Your task to perform on an android device: turn on bluetooth scan Image 0: 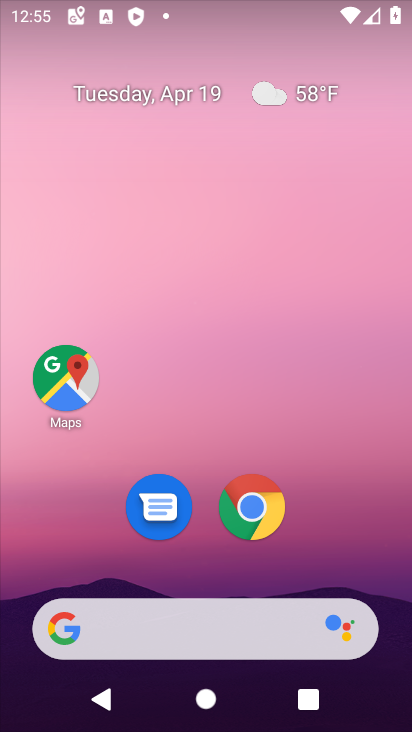
Step 0: drag from (212, 570) to (194, 44)
Your task to perform on an android device: turn on bluetooth scan Image 1: 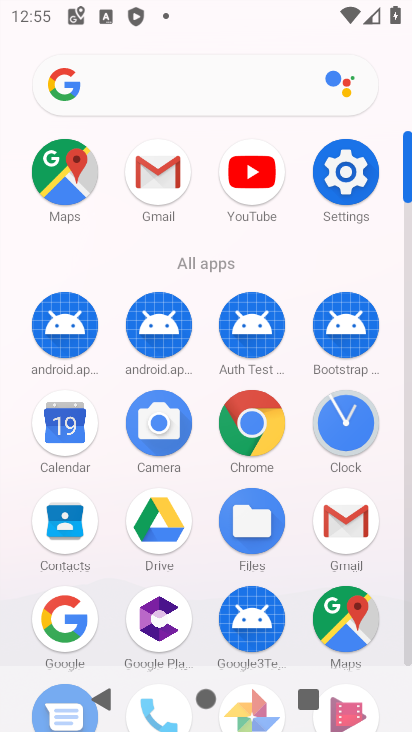
Step 1: click (339, 181)
Your task to perform on an android device: turn on bluetooth scan Image 2: 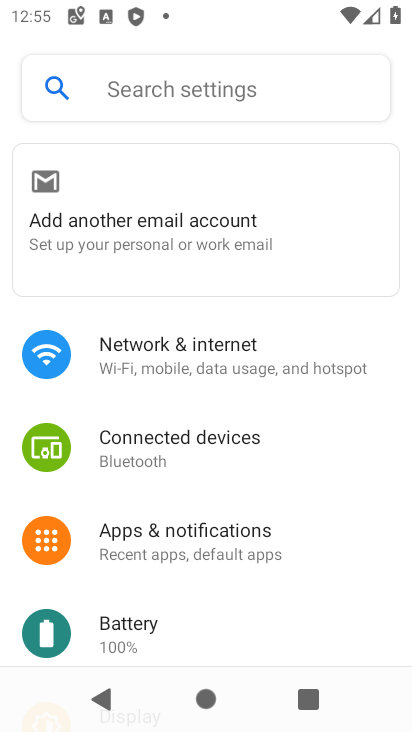
Step 2: drag from (231, 547) to (234, 248)
Your task to perform on an android device: turn on bluetooth scan Image 3: 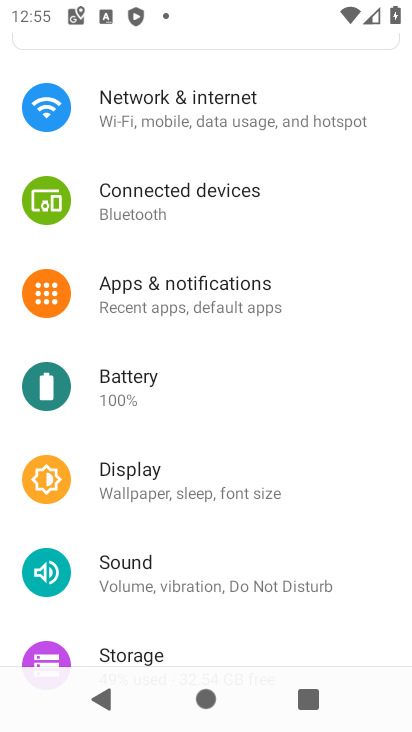
Step 3: drag from (236, 574) to (236, 259)
Your task to perform on an android device: turn on bluetooth scan Image 4: 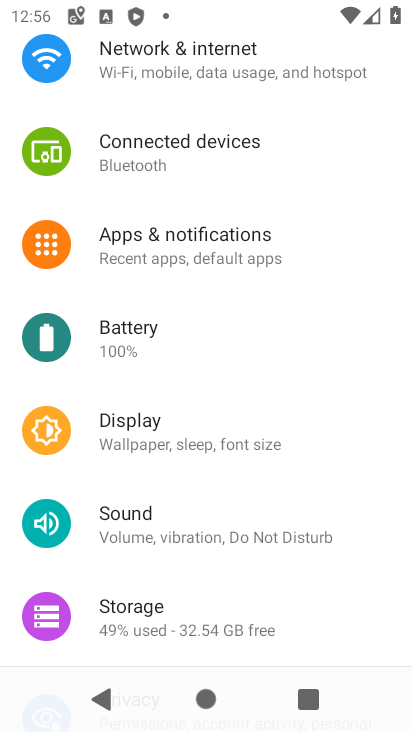
Step 4: drag from (219, 567) to (217, 275)
Your task to perform on an android device: turn on bluetooth scan Image 5: 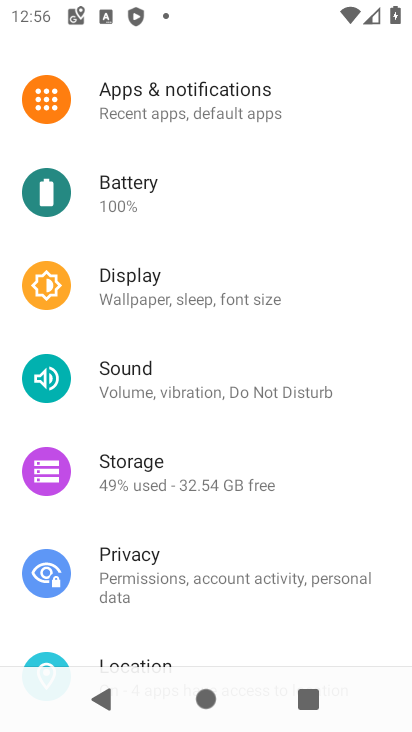
Step 5: click (184, 647)
Your task to perform on an android device: turn on bluetooth scan Image 6: 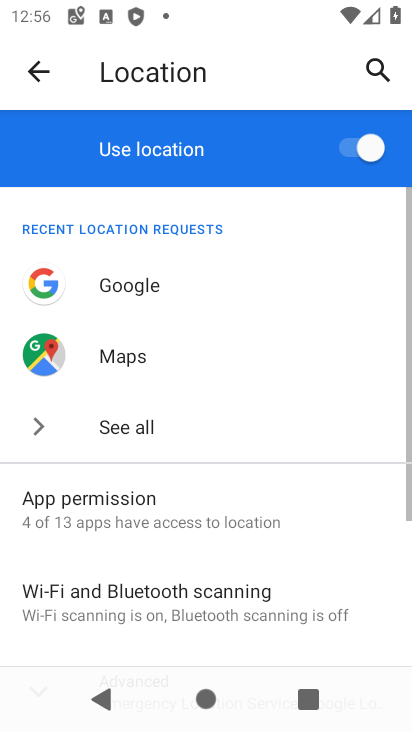
Step 6: drag from (188, 553) to (224, 281)
Your task to perform on an android device: turn on bluetooth scan Image 7: 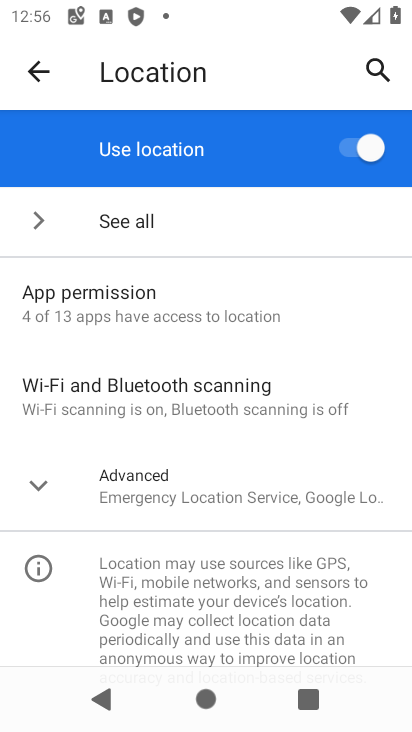
Step 7: click (176, 407)
Your task to perform on an android device: turn on bluetooth scan Image 8: 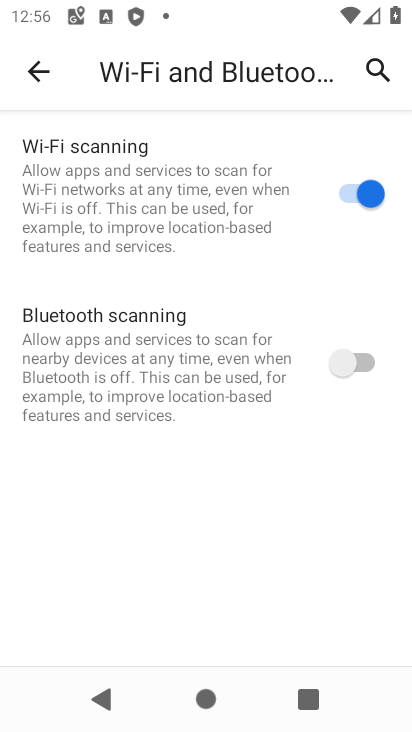
Step 8: click (341, 363)
Your task to perform on an android device: turn on bluetooth scan Image 9: 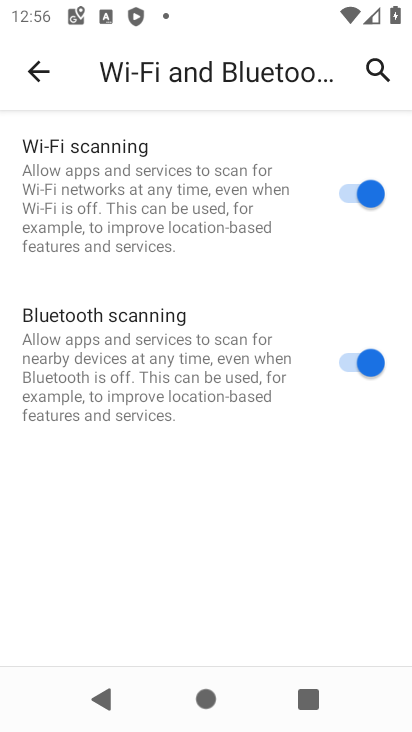
Step 9: task complete